Your task to perform on an android device: Turn off the flashlight Image 0: 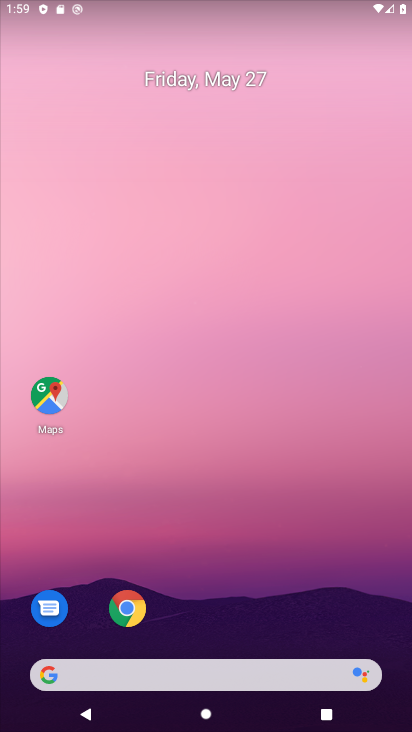
Step 0: drag from (257, 3) to (306, 544)
Your task to perform on an android device: Turn off the flashlight Image 1: 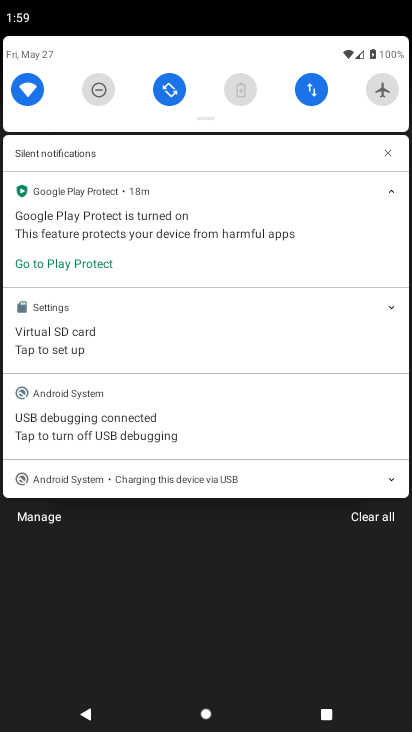
Step 1: task complete